Your task to perform on an android device: What's the news in Guyana? Image 0: 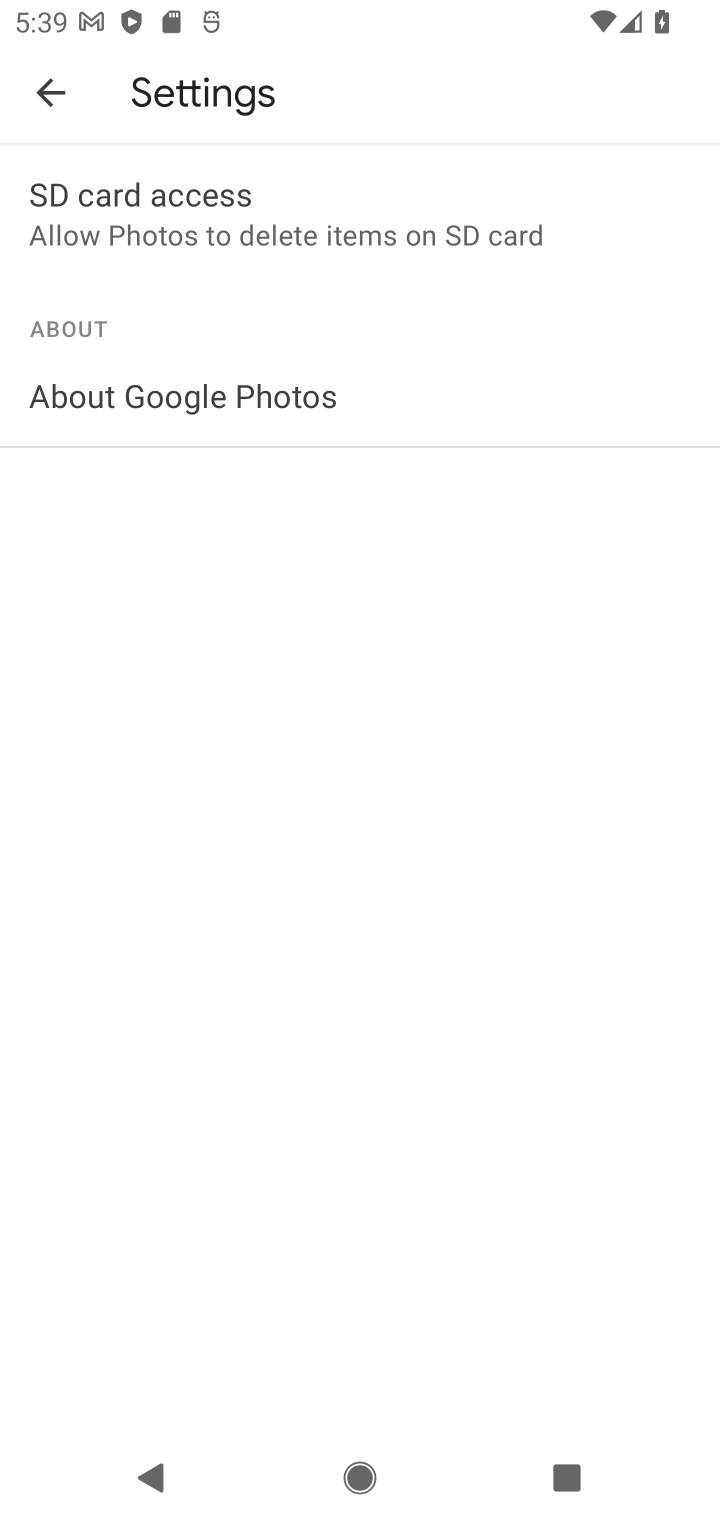
Step 0: press home button
Your task to perform on an android device: What's the news in Guyana? Image 1: 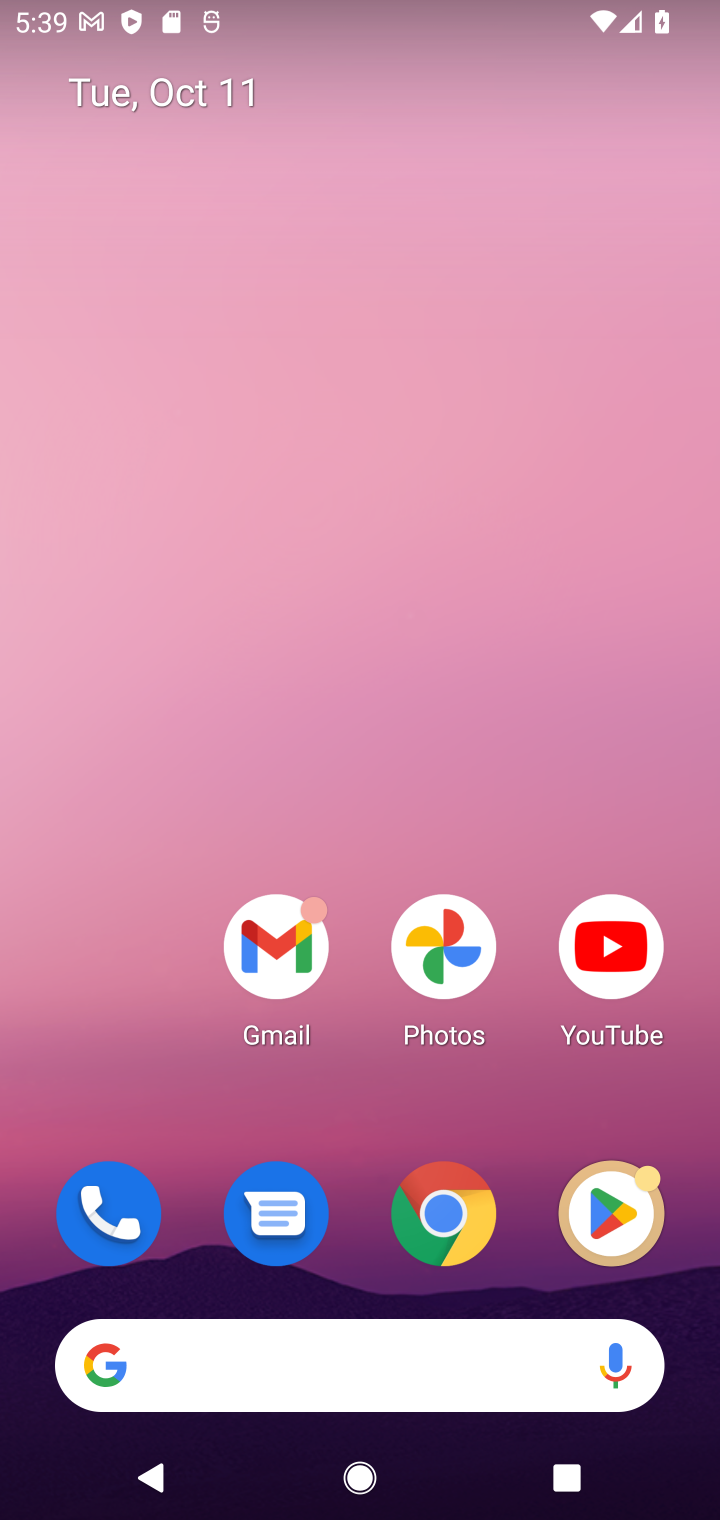
Step 1: click (442, 1229)
Your task to perform on an android device: What's the news in Guyana? Image 2: 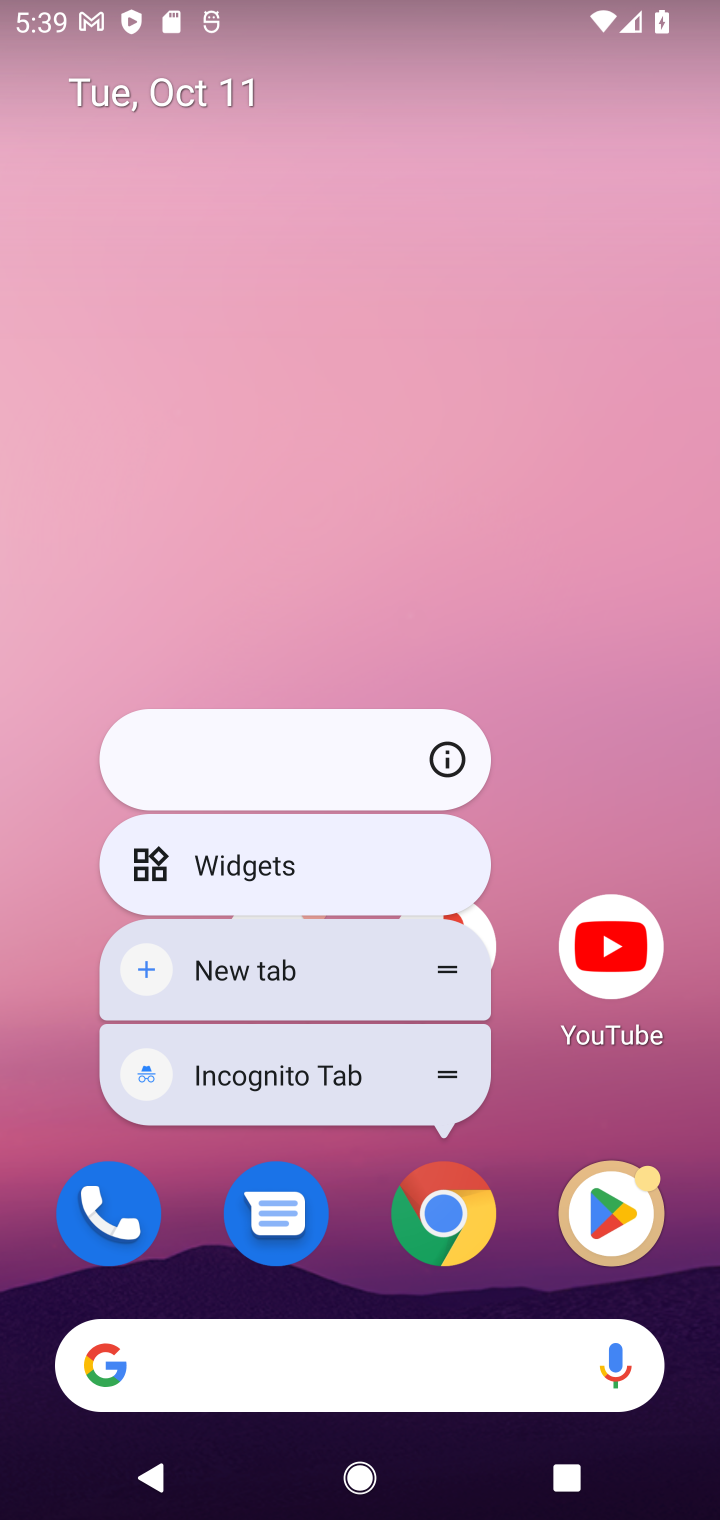
Step 2: click (462, 1255)
Your task to perform on an android device: What's the news in Guyana? Image 3: 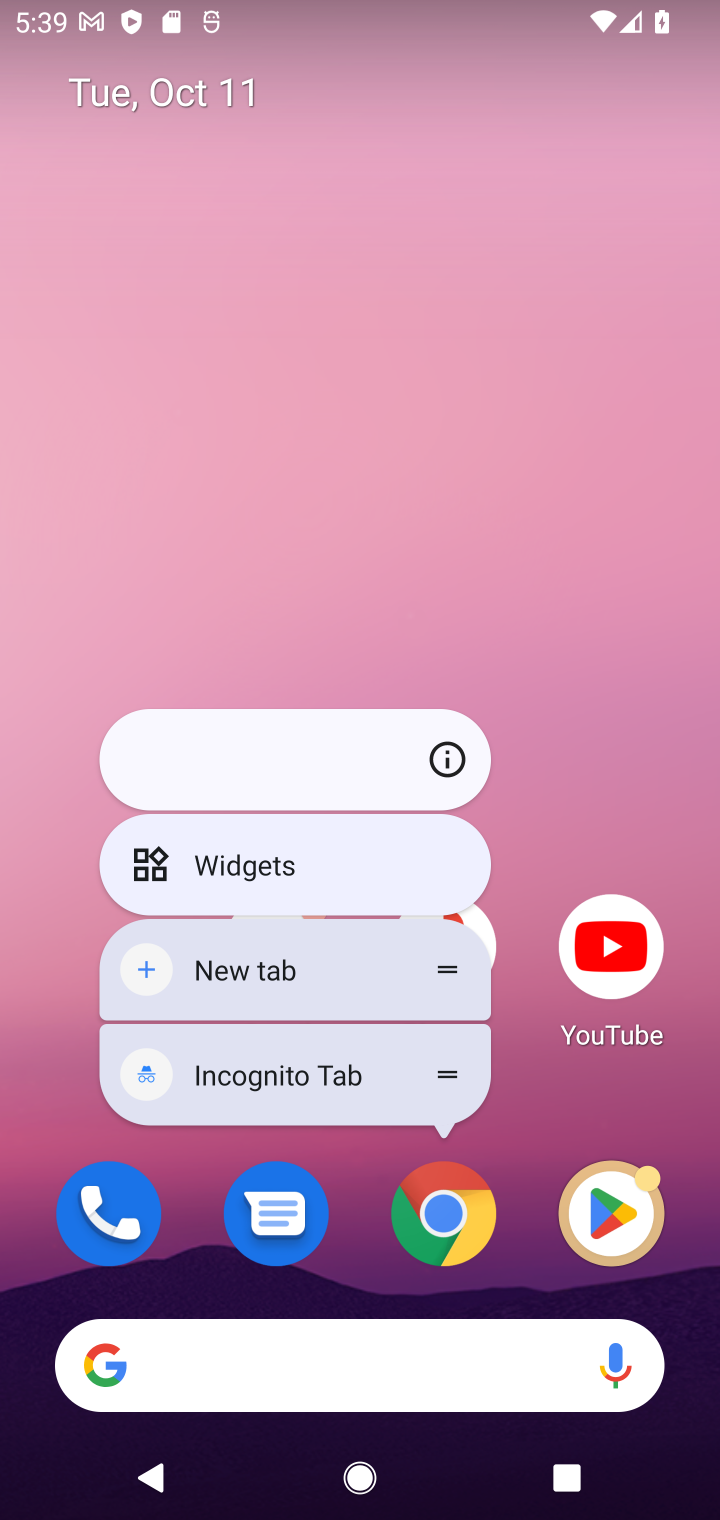
Step 3: click (462, 1255)
Your task to perform on an android device: What's the news in Guyana? Image 4: 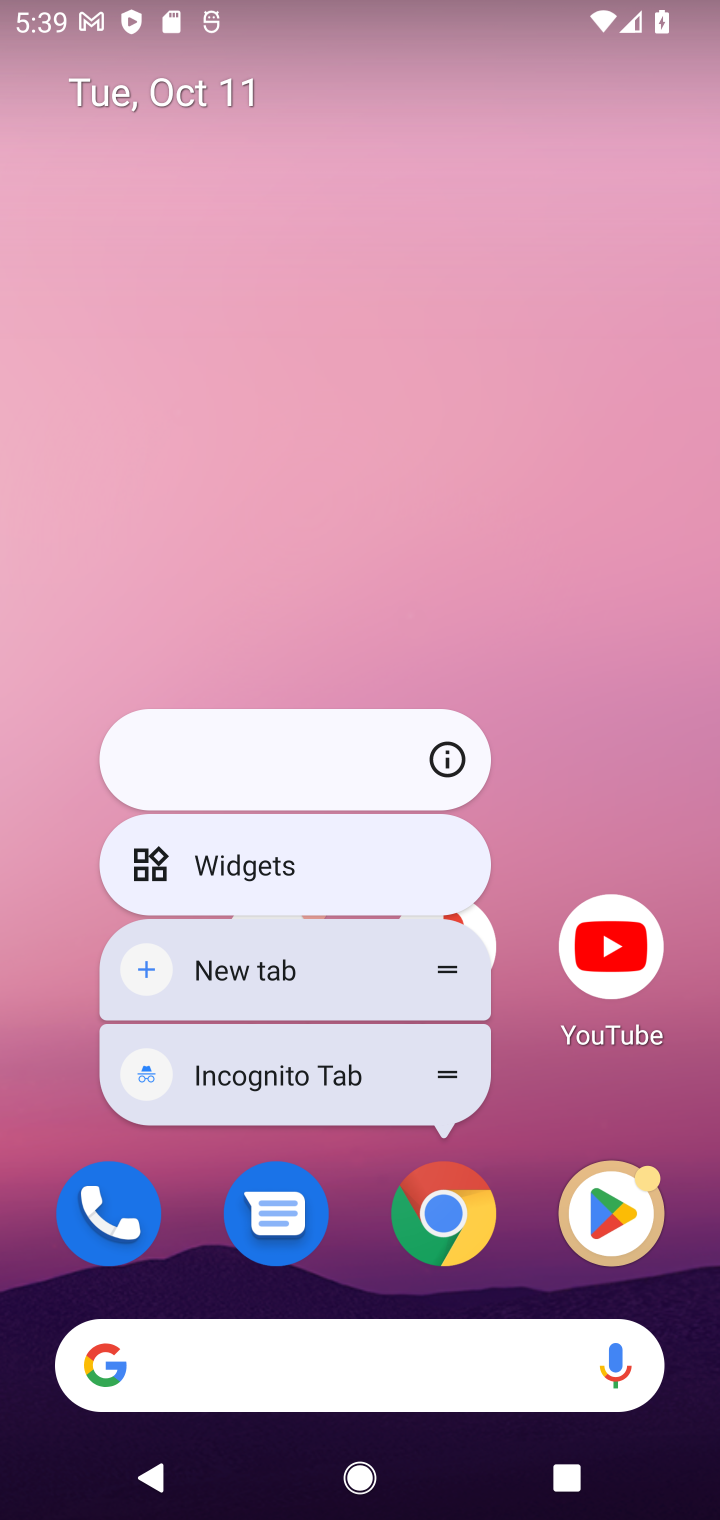
Step 4: click (450, 1225)
Your task to perform on an android device: What's the news in Guyana? Image 5: 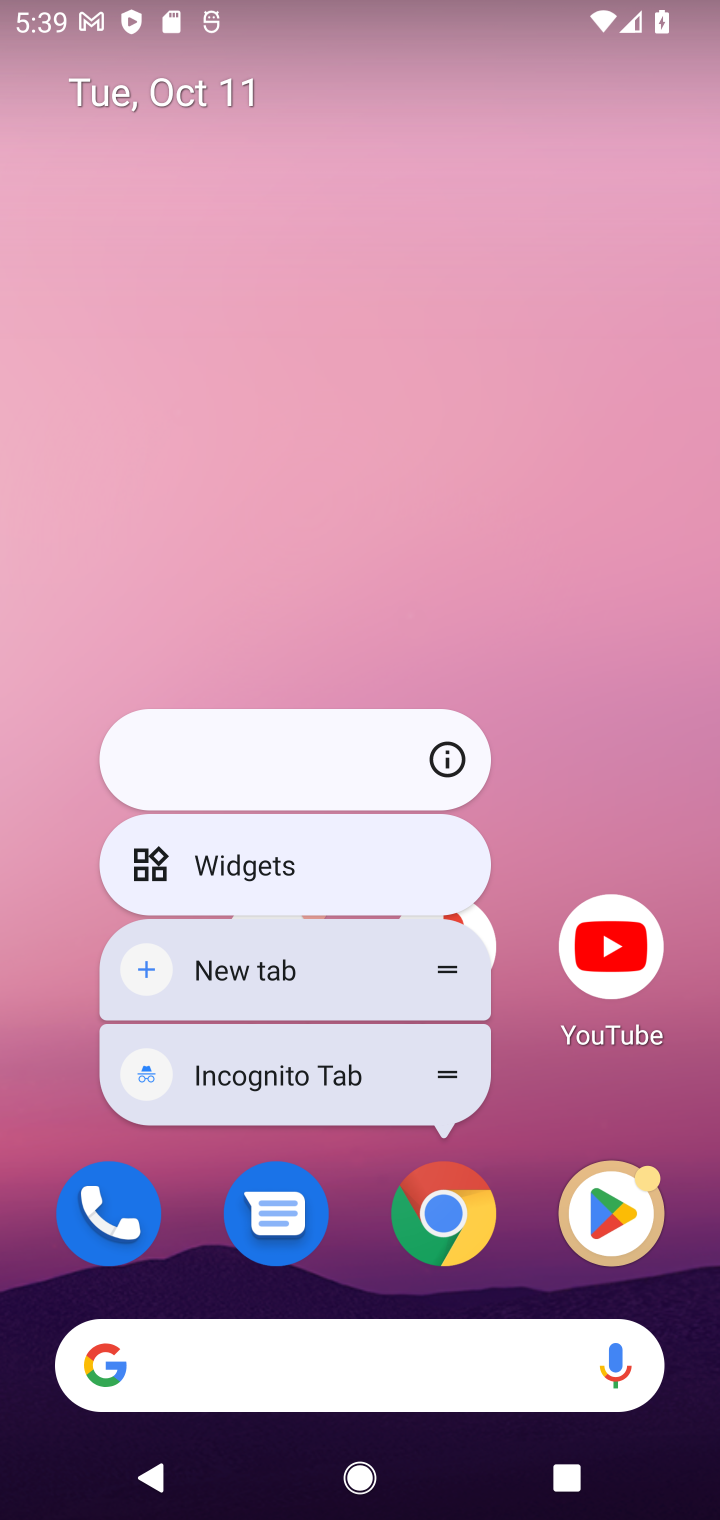
Step 5: drag from (395, 1263) to (524, 117)
Your task to perform on an android device: What's the news in Guyana? Image 6: 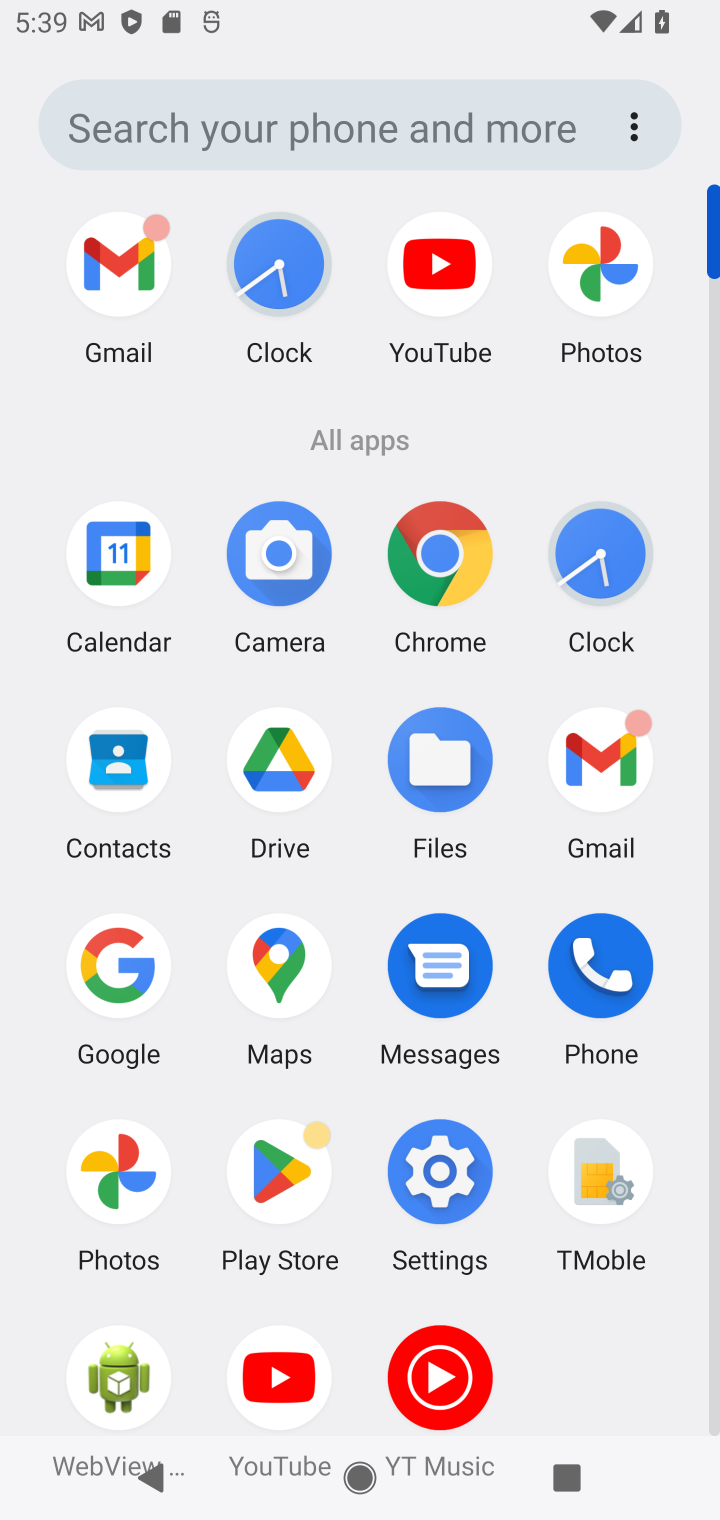
Step 6: click (447, 561)
Your task to perform on an android device: What's the news in Guyana? Image 7: 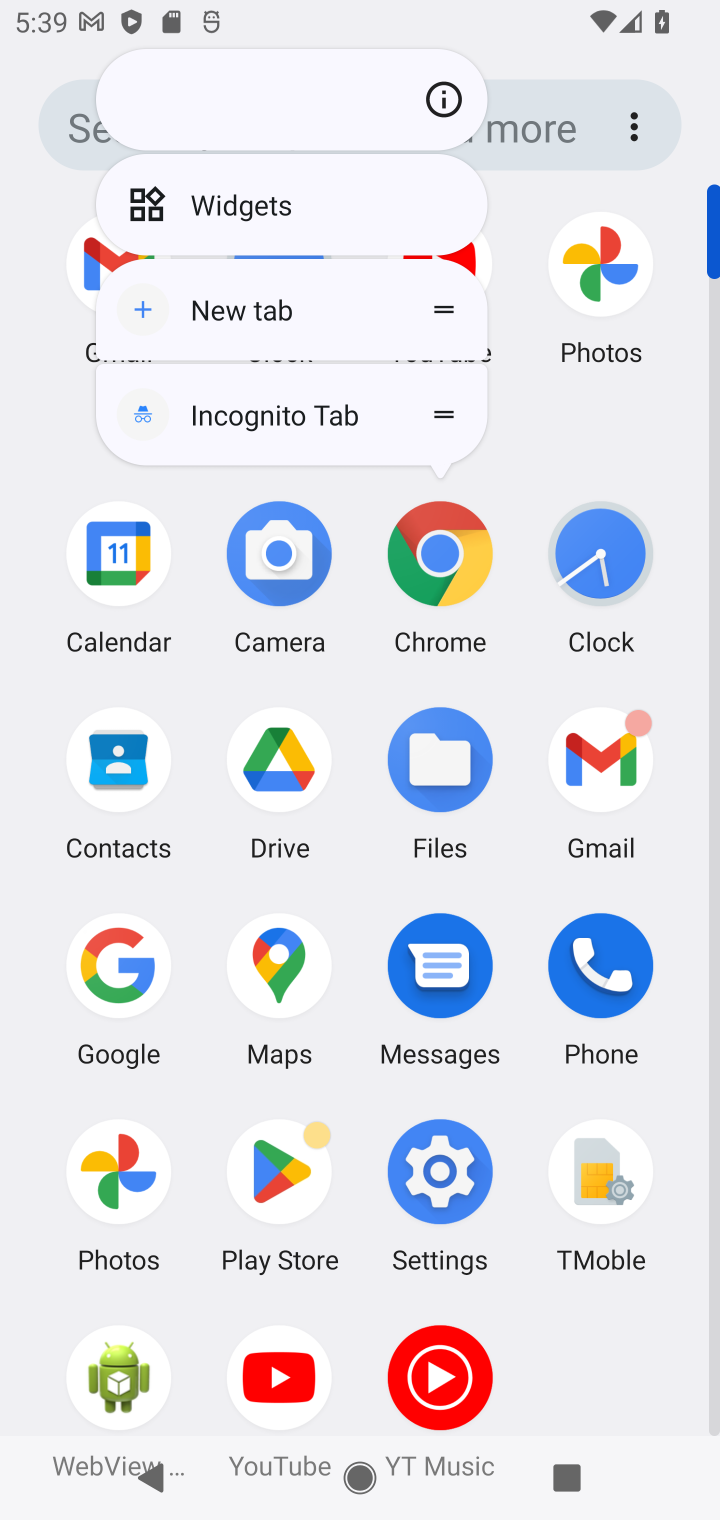
Step 7: click (457, 586)
Your task to perform on an android device: What's the news in Guyana? Image 8: 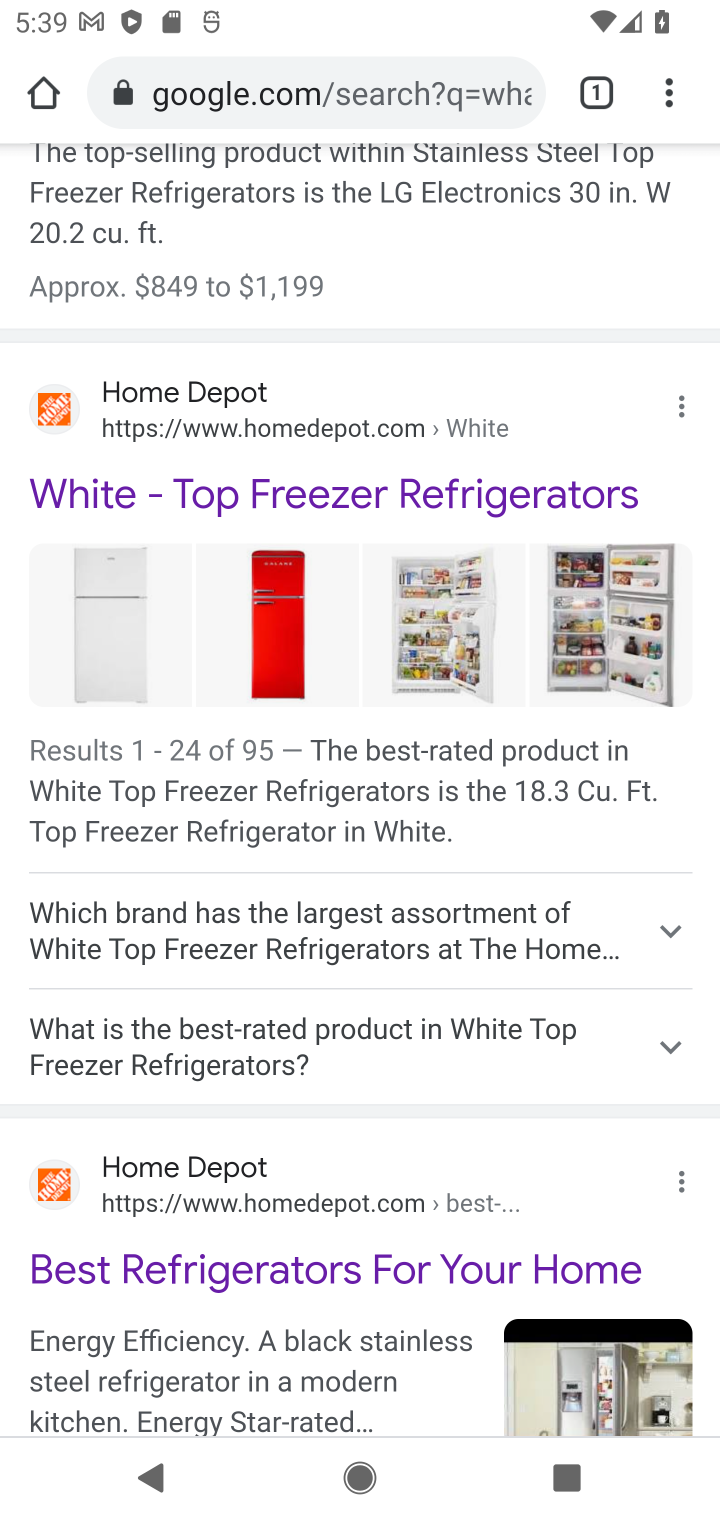
Step 8: click (369, 120)
Your task to perform on an android device: What's the news in Guyana? Image 9: 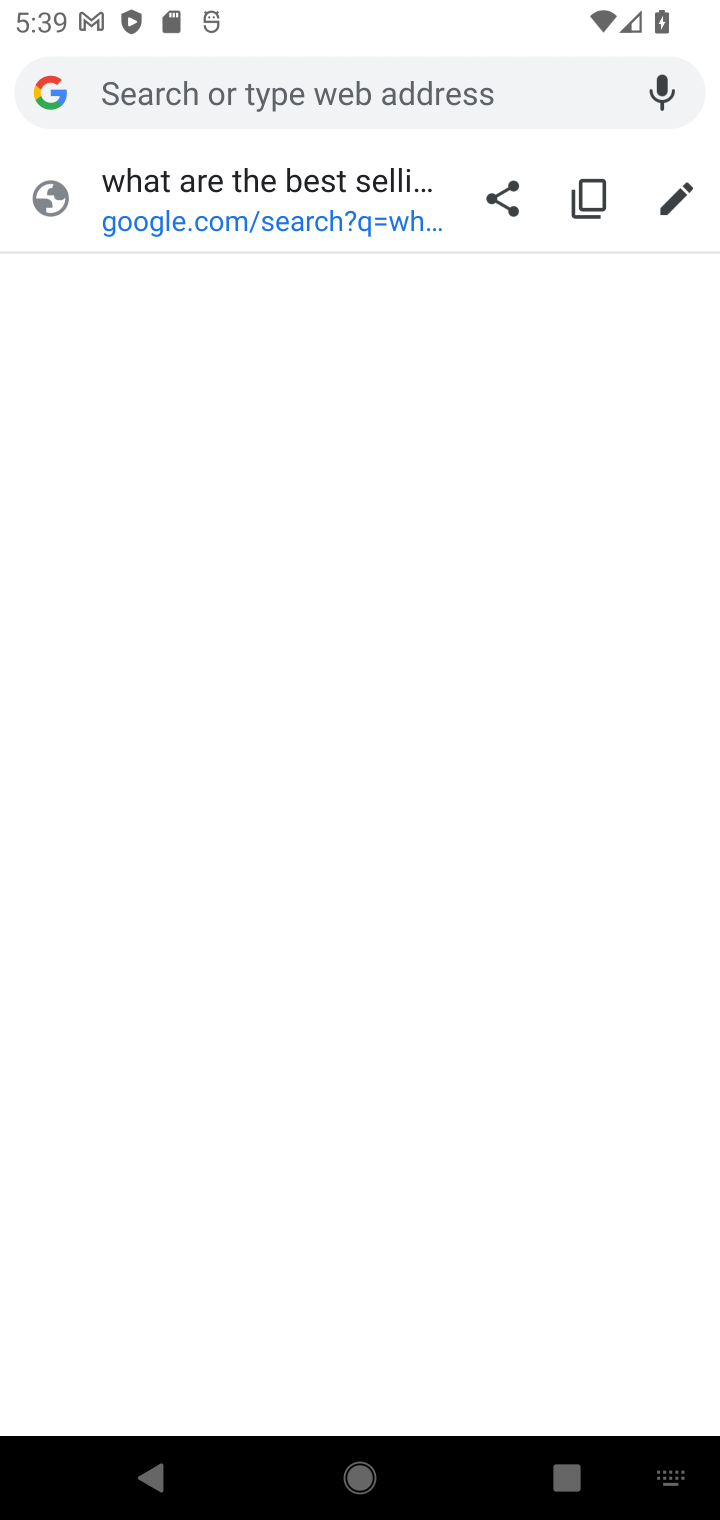
Step 9: type "What's the news in Guyana?"
Your task to perform on an android device: What's the news in Guyana? Image 10: 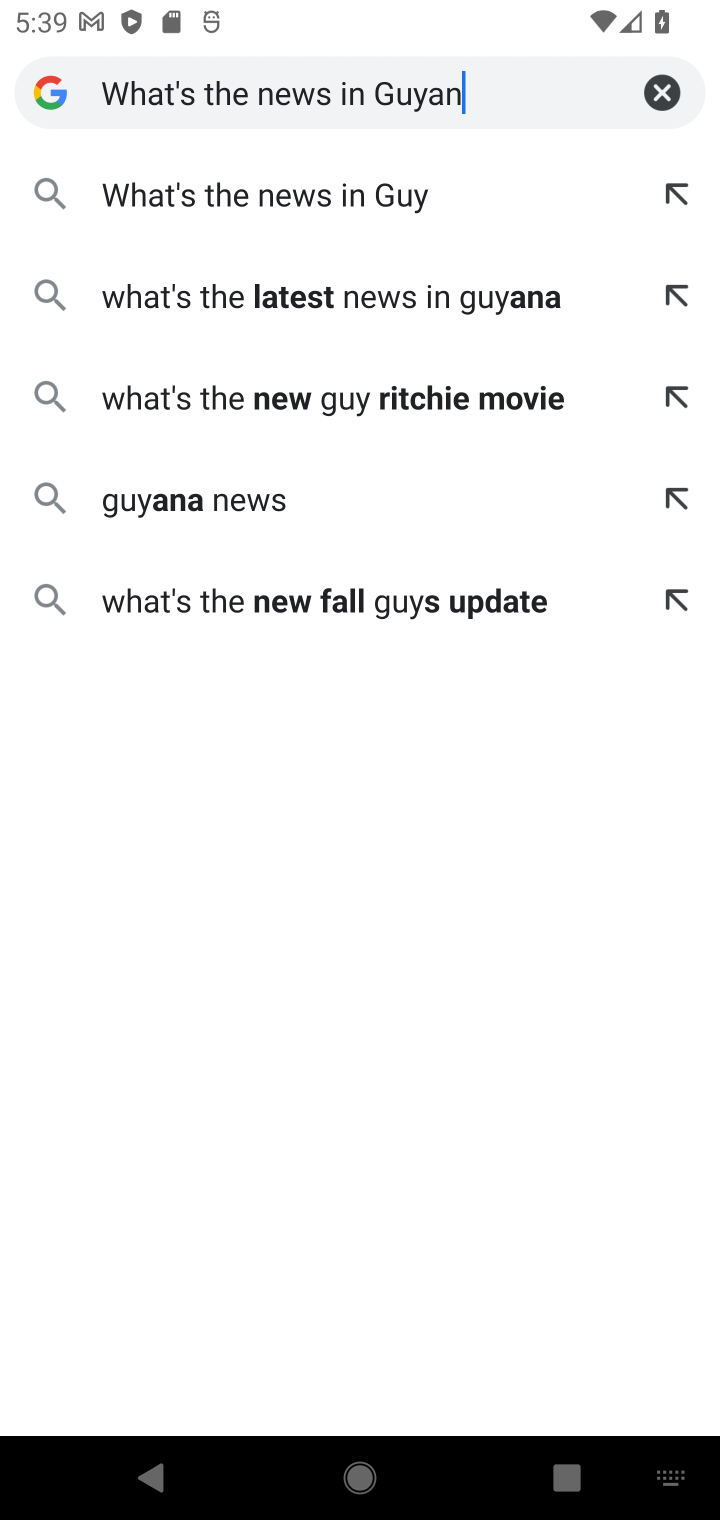
Step 10: type ""
Your task to perform on an android device: What's the news in Guyana? Image 11: 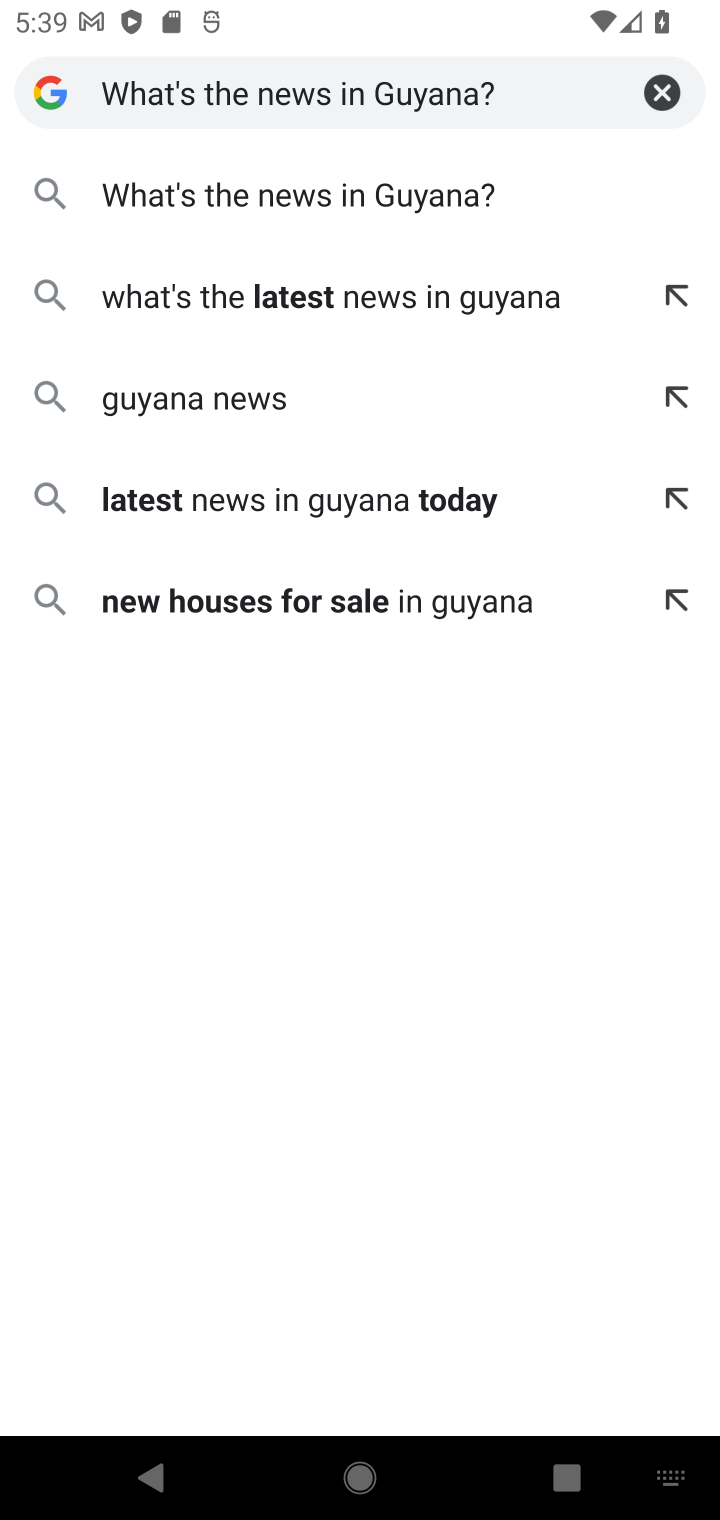
Step 11: click (395, 216)
Your task to perform on an android device: What's the news in Guyana? Image 12: 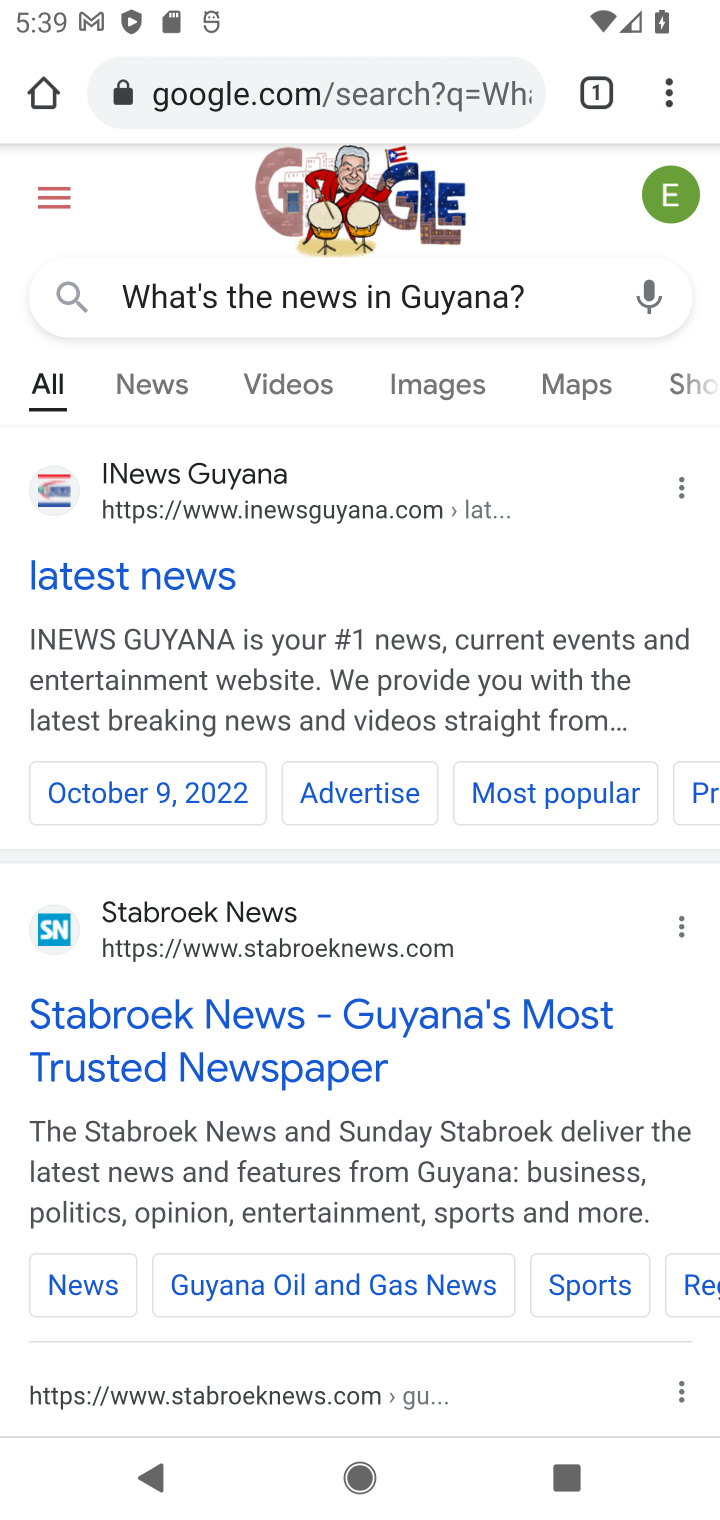
Step 12: click (123, 579)
Your task to perform on an android device: What's the news in Guyana? Image 13: 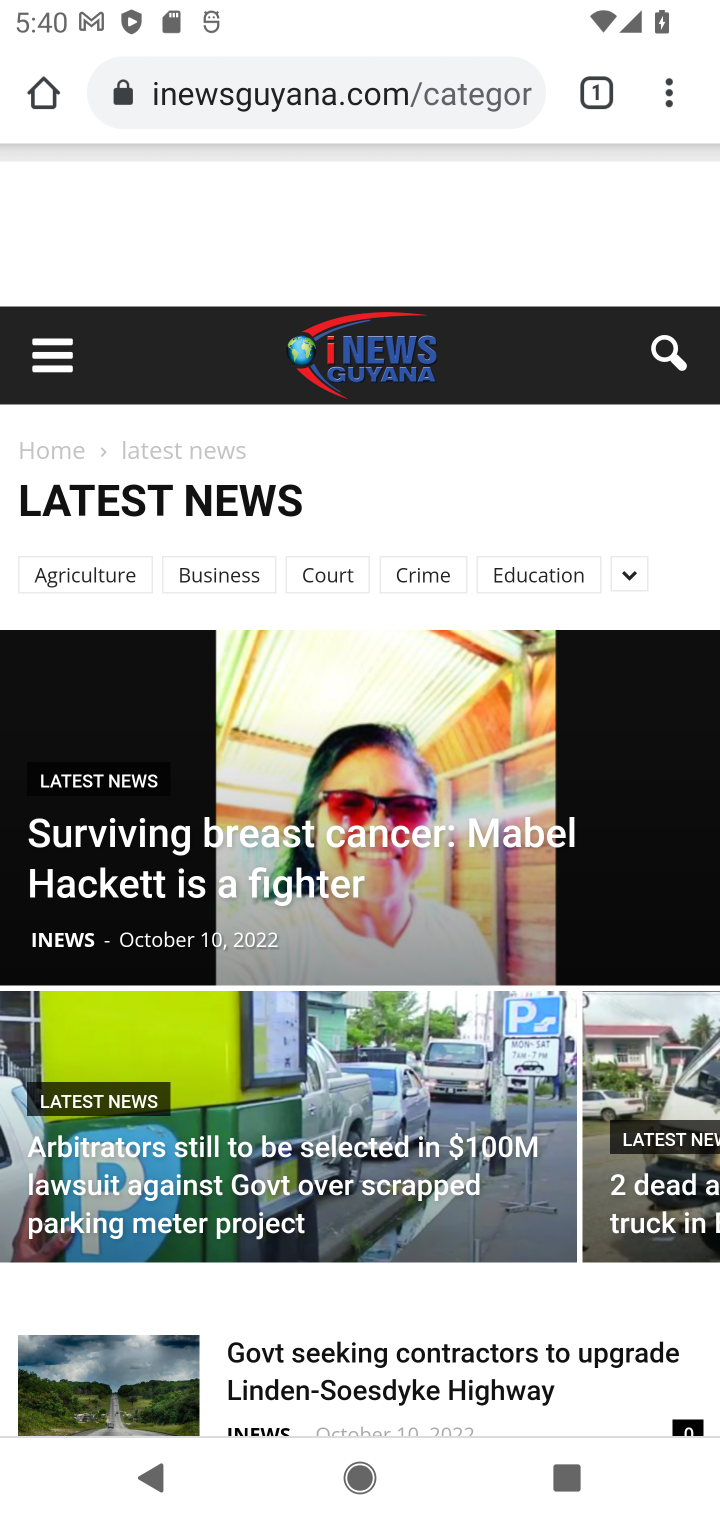
Step 13: task complete